Your task to perform on an android device: Show me the alarms in the clock app Image 0: 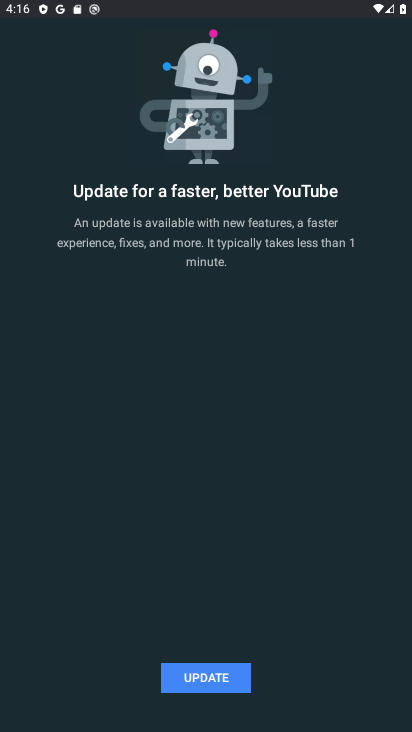
Step 0: press home button
Your task to perform on an android device: Show me the alarms in the clock app Image 1: 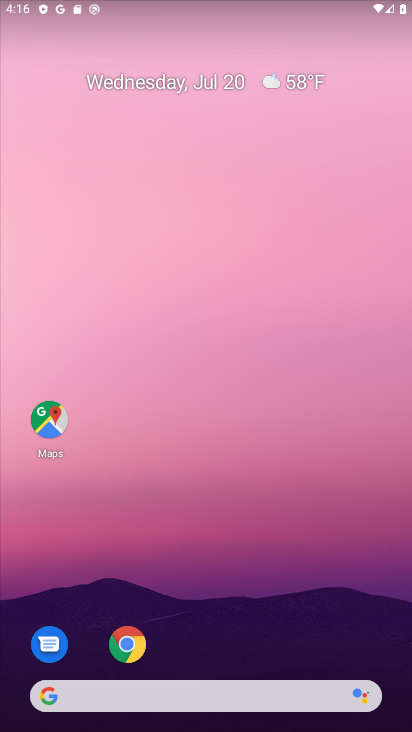
Step 1: press home button
Your task to perform on an android device: Show me the alarms in the clock app Image 2: 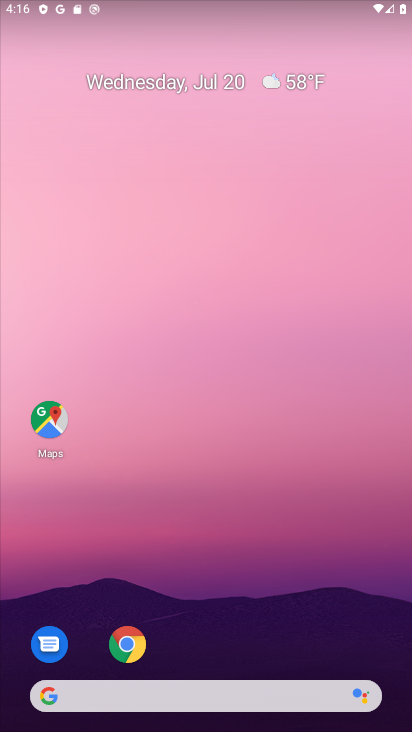
Step 2: drag from (260, 502) to (377, 0)
Your task to perform on an android device: Show me the alarms in the clock app Image 3: 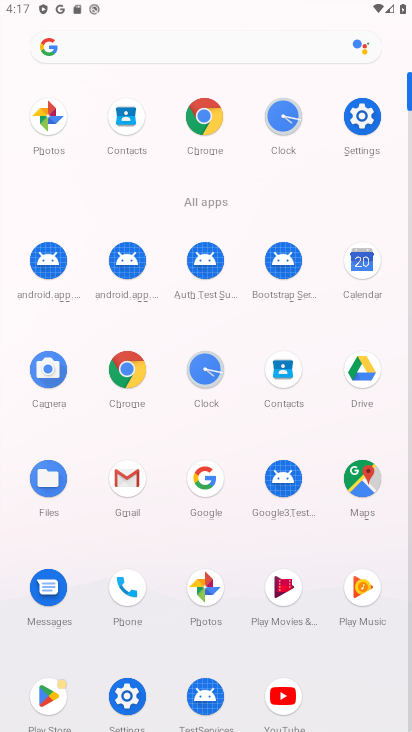
Step 3: click (274, 115)
Your task to perform on an android device: Show me the alarms in the clock app Image 4: 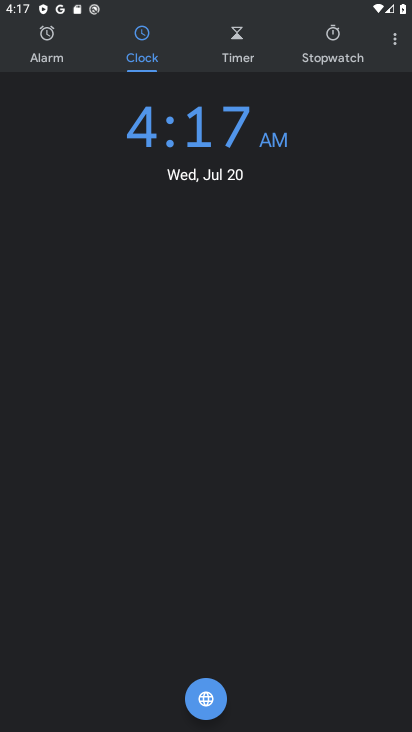
Step 4: click (56, 53)
Your task to perform on an android device: Show me the alarms in the clock app Image 5: 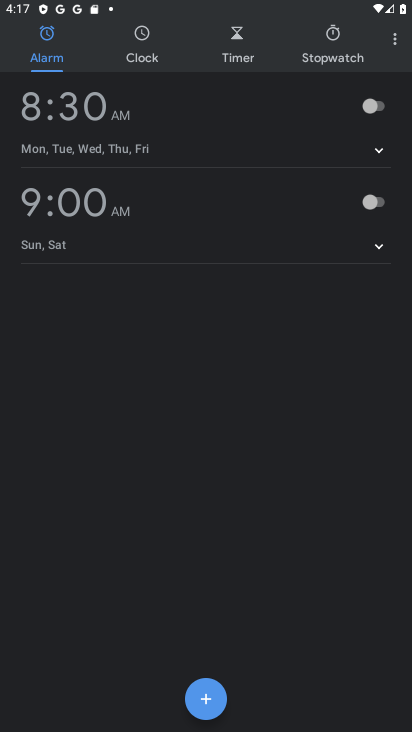
Step 5: task complete